Your task to perform on an android device: Set the phone to "Do not disturb". Image 0: 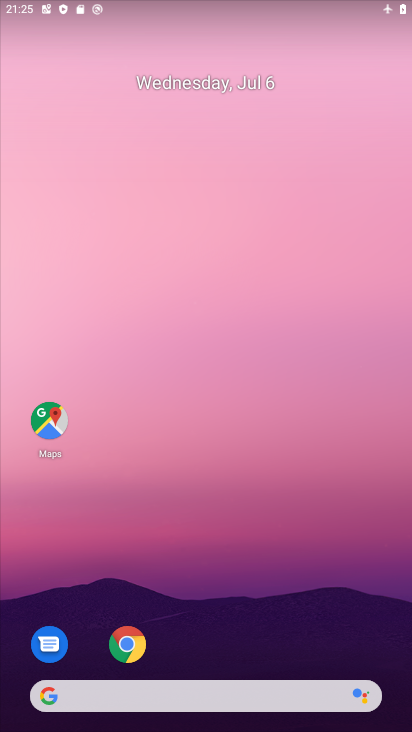
Step 0: drag from (227, 643) to (236, 146)
Your task to perform on an android device: Set the phone to "Do not disturb". Image 1: 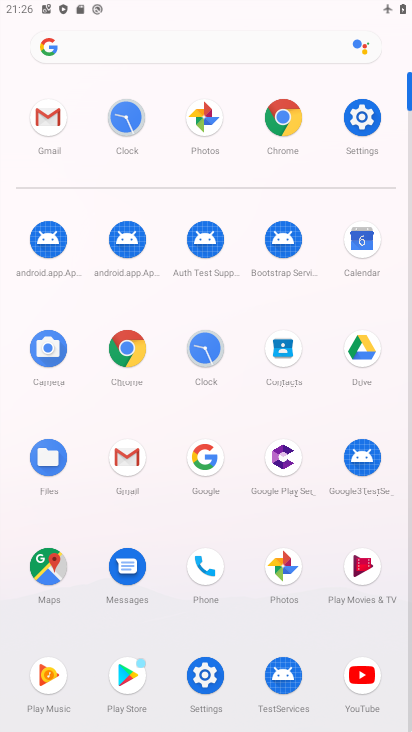
Step 1: click (362, 117)
Your task to perform on an android device: Set the phone to "Do not disturb". Image 2: 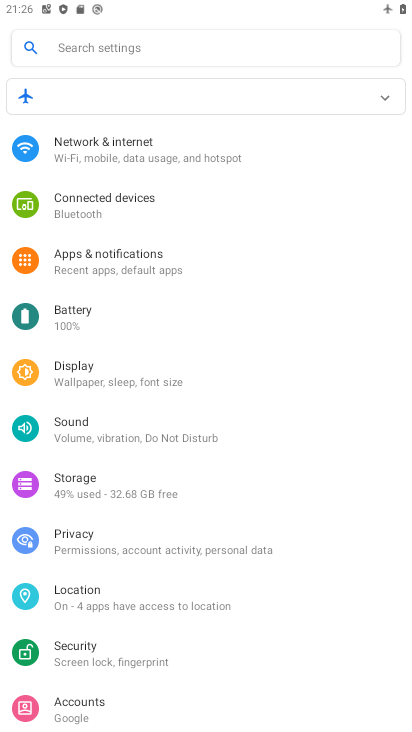
Step 2: drag from (174, 288) to (186, 579)
Your task to perform on an android device: Set the phone to "Do not disturb". Image 3: 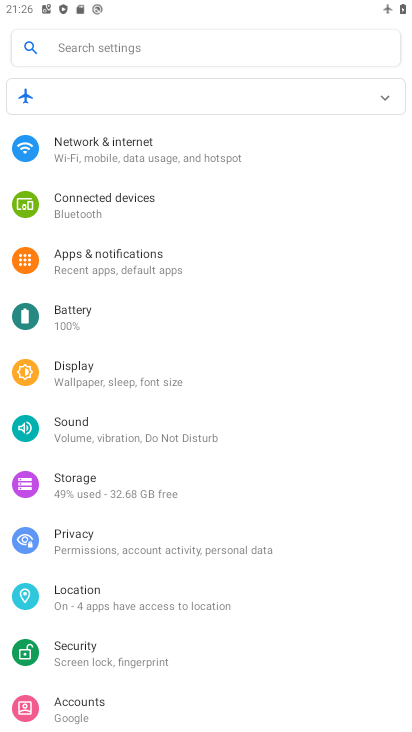
Step 3: click (156, 435)
Your task to perform on an android device: Set the phone to "Do not disturb". Image 4: 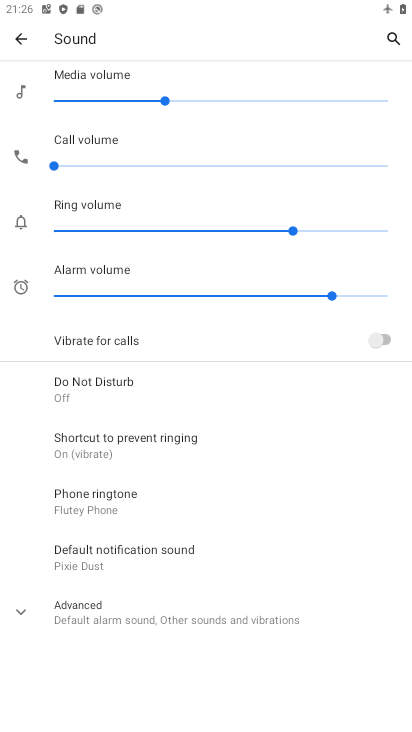
Step 4: click (82, 405)
Your task to perform on an android device: Set the phone to "Do not disturb". Image 5: 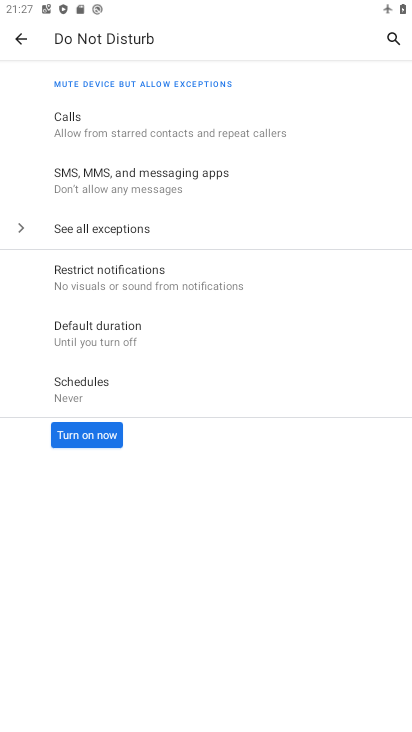
Step 5: click (101, 464)
Your task to perform on an android device: Set the phone to "Do not disturb". Image 6: 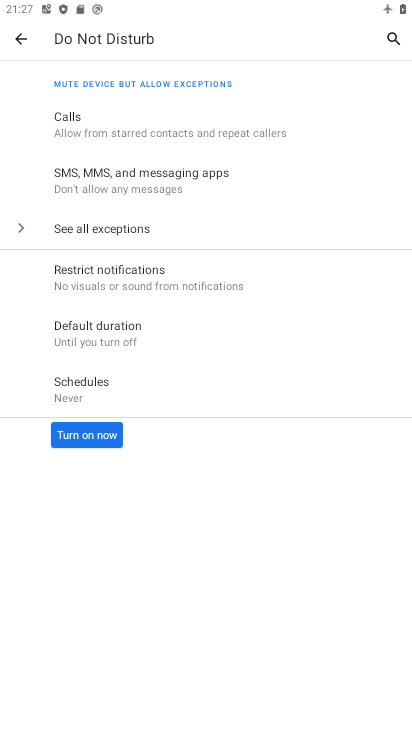
Step 6: drag from (288, 270) to (293, 534)
Your task to perform on an android device: Set the phone to "Do not disturb". Image 7: 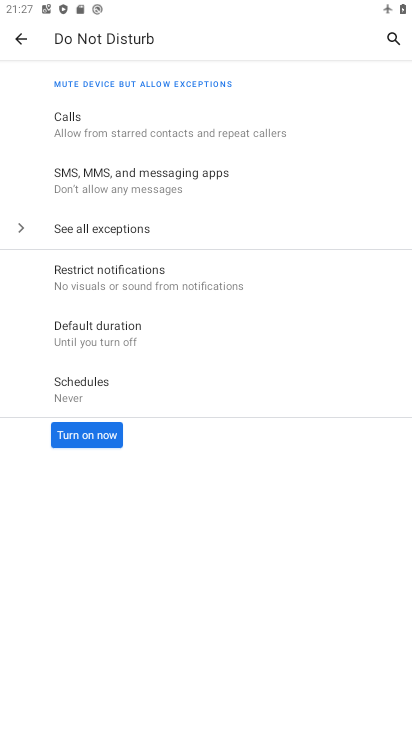
Step 7: click (97, 426)
Your task to perform on an android device: Set the phone to "Do not disturb". Image 8: 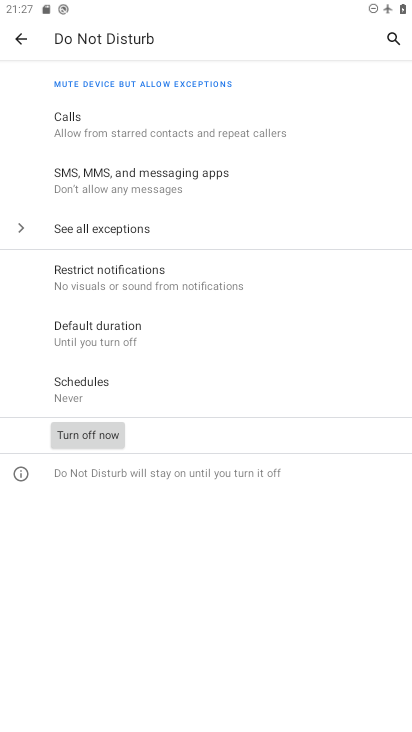
Step 8: task complete